Your task to perform on an android device: set the timer Image 0: 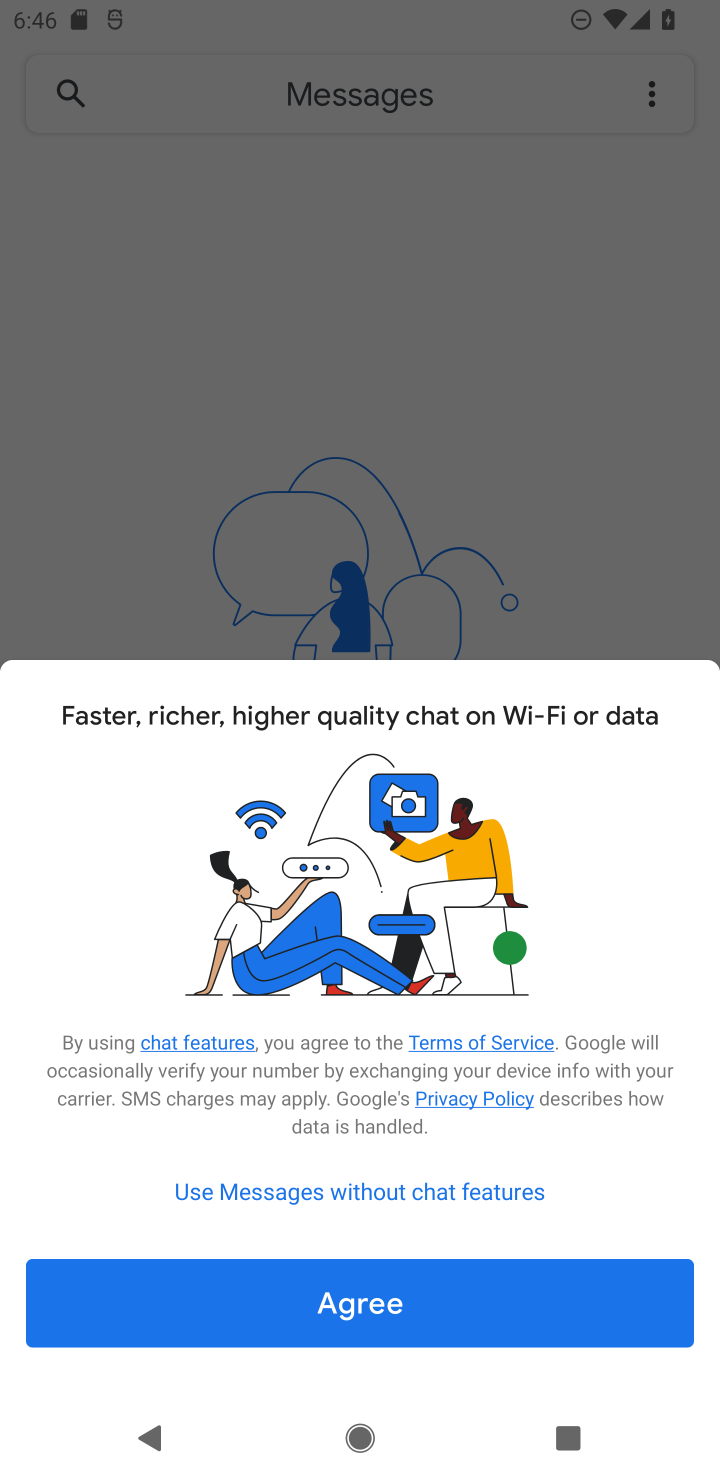
Step 0: press home button
Your task to perform on an android device: set the timer Image 1: 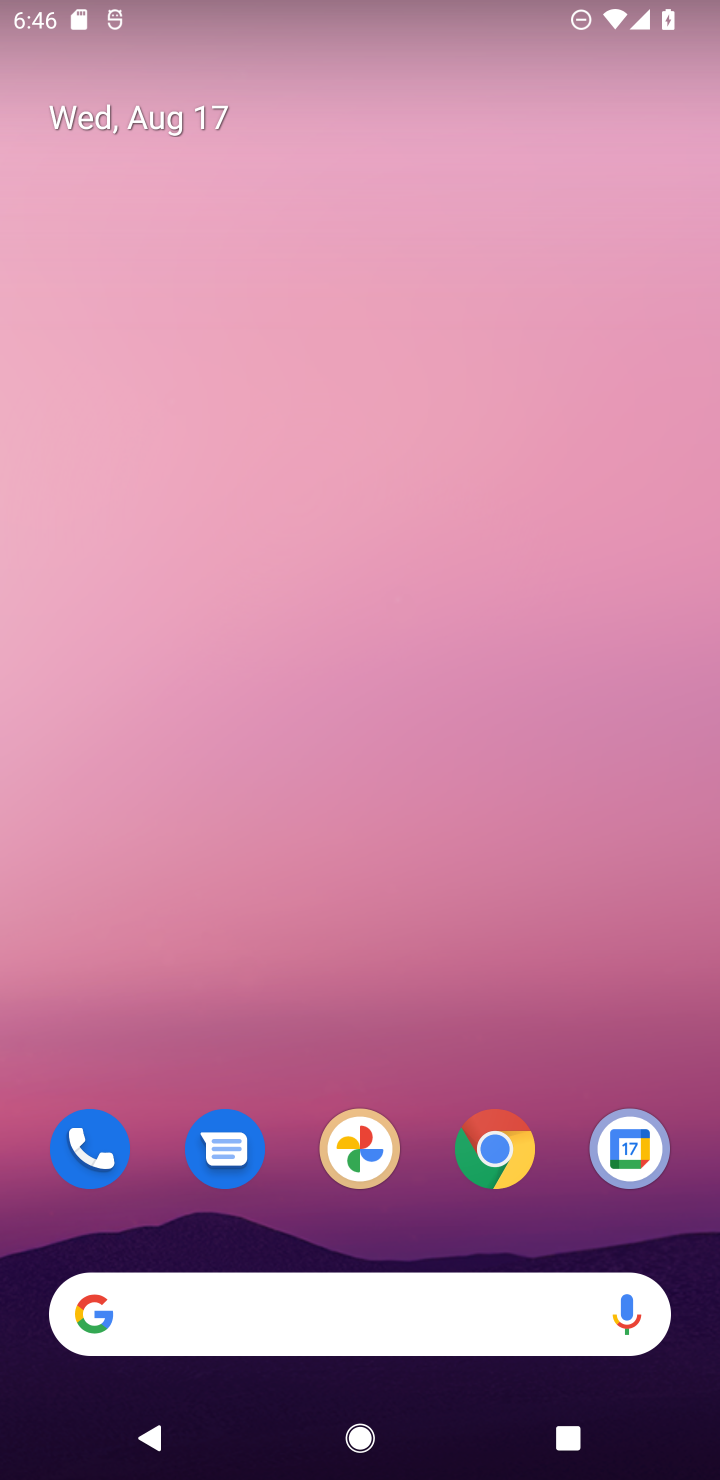
Step 1: drag from (409, 1246) to (252, 426)
Your task to perform on an android device: set the timer Image 2: 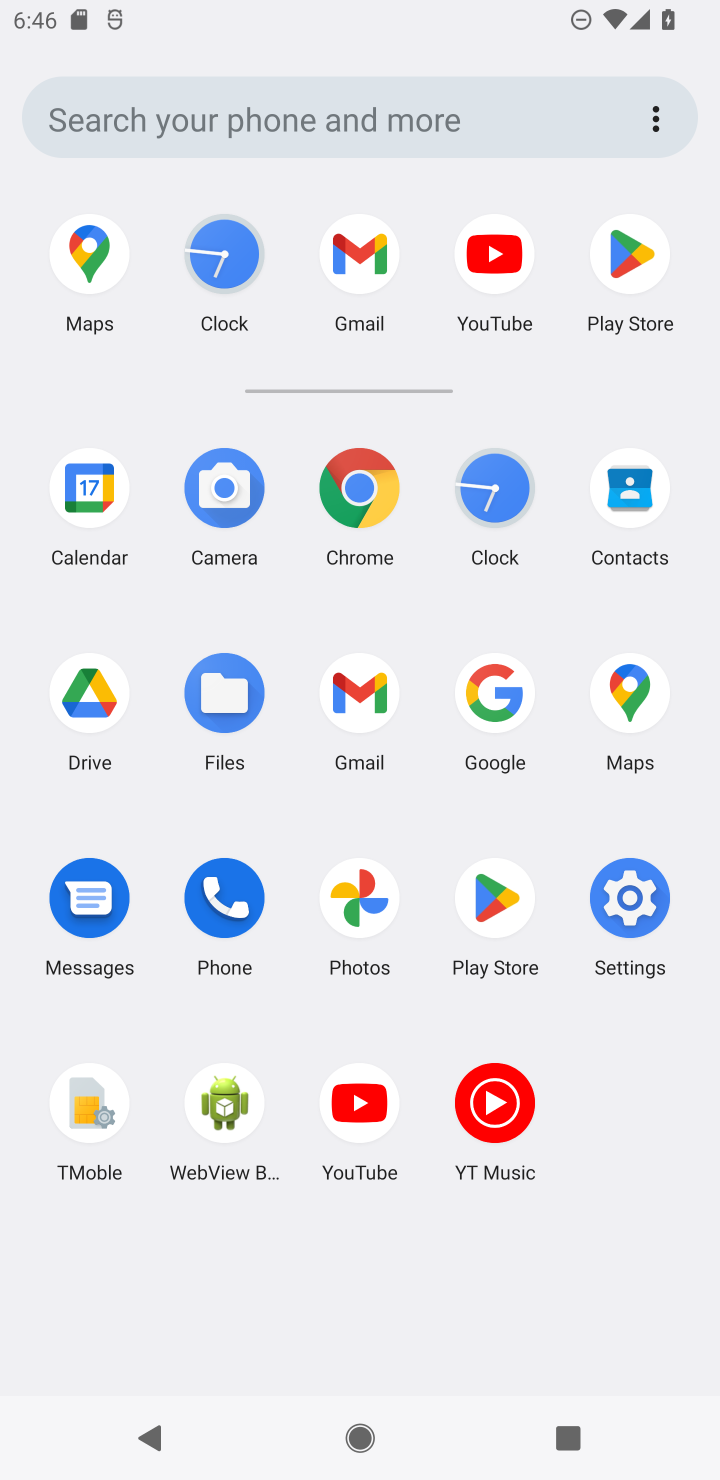
Step 2: click (220, 269)
Your task to perform on an android device: set the timer Image 3: 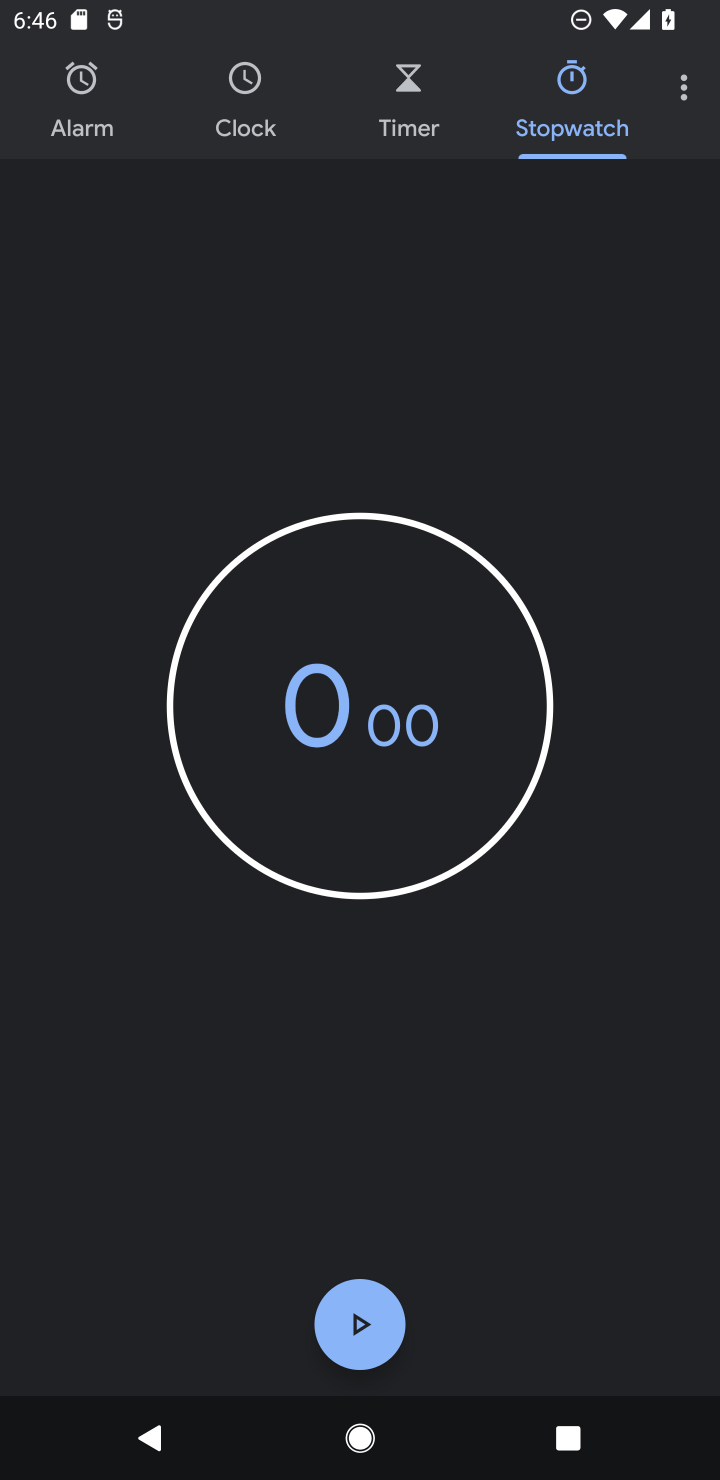
Step 3: click (415, 98)
Your task to perform on an android device: set the timer Image 4: 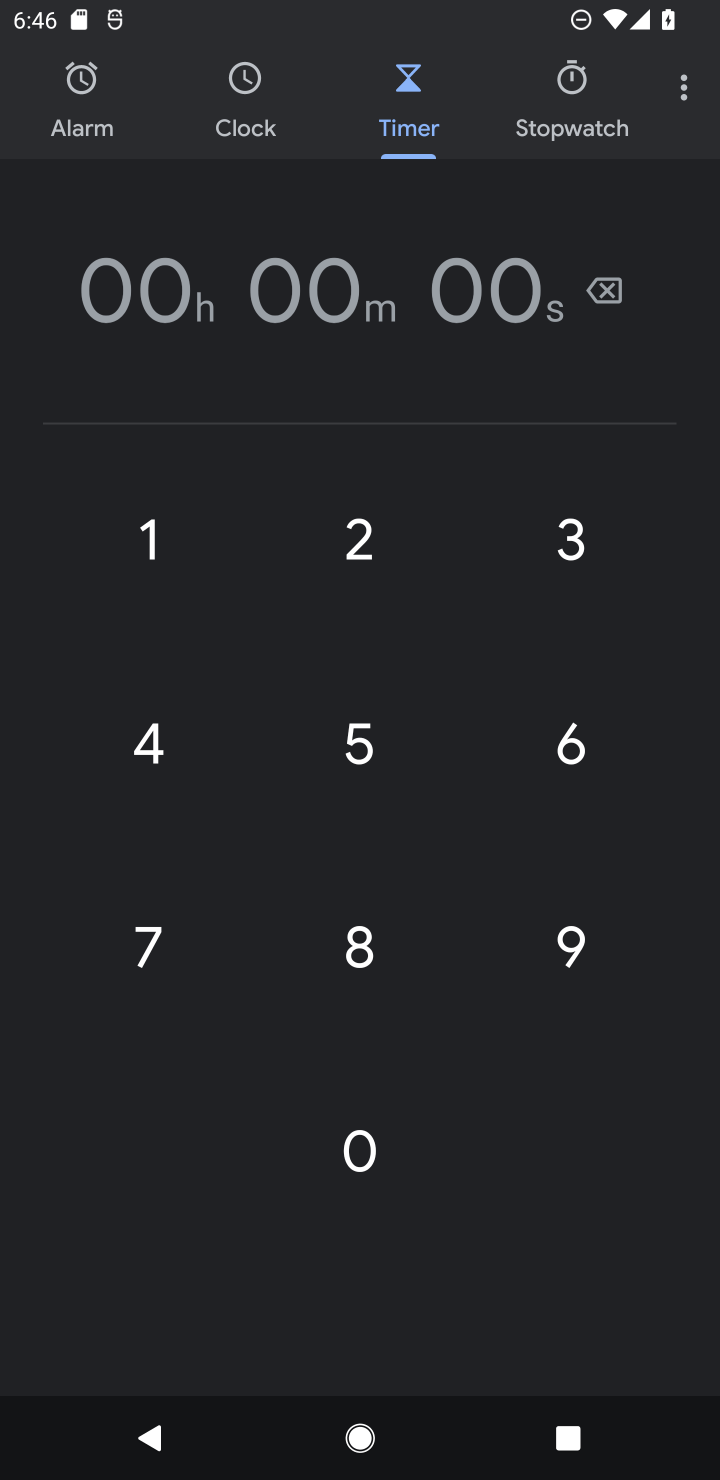
Step 4: click (158, 556)
Your task to perform on an android device: set the timer Image 5: 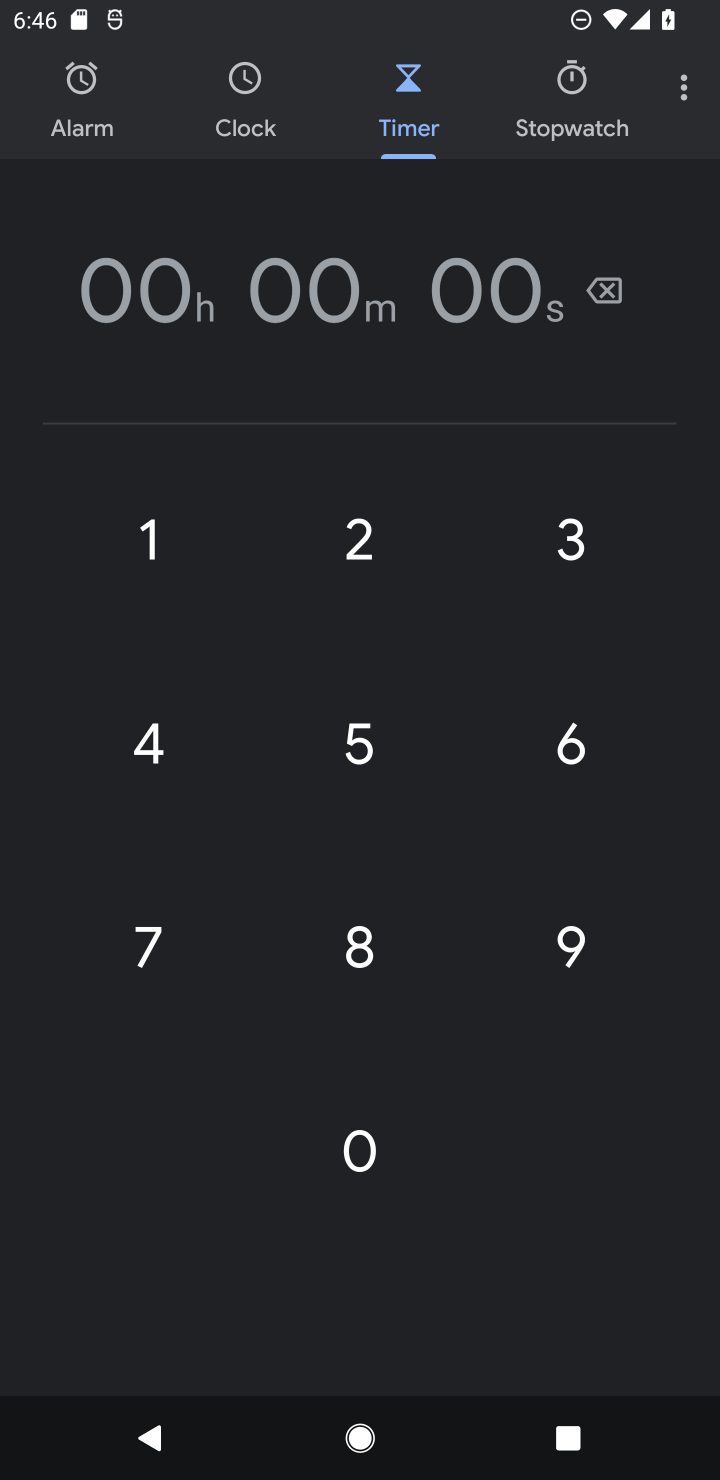
Step 5: click (158, 556)
Your task to perform on an android device: set the timer Image 6: 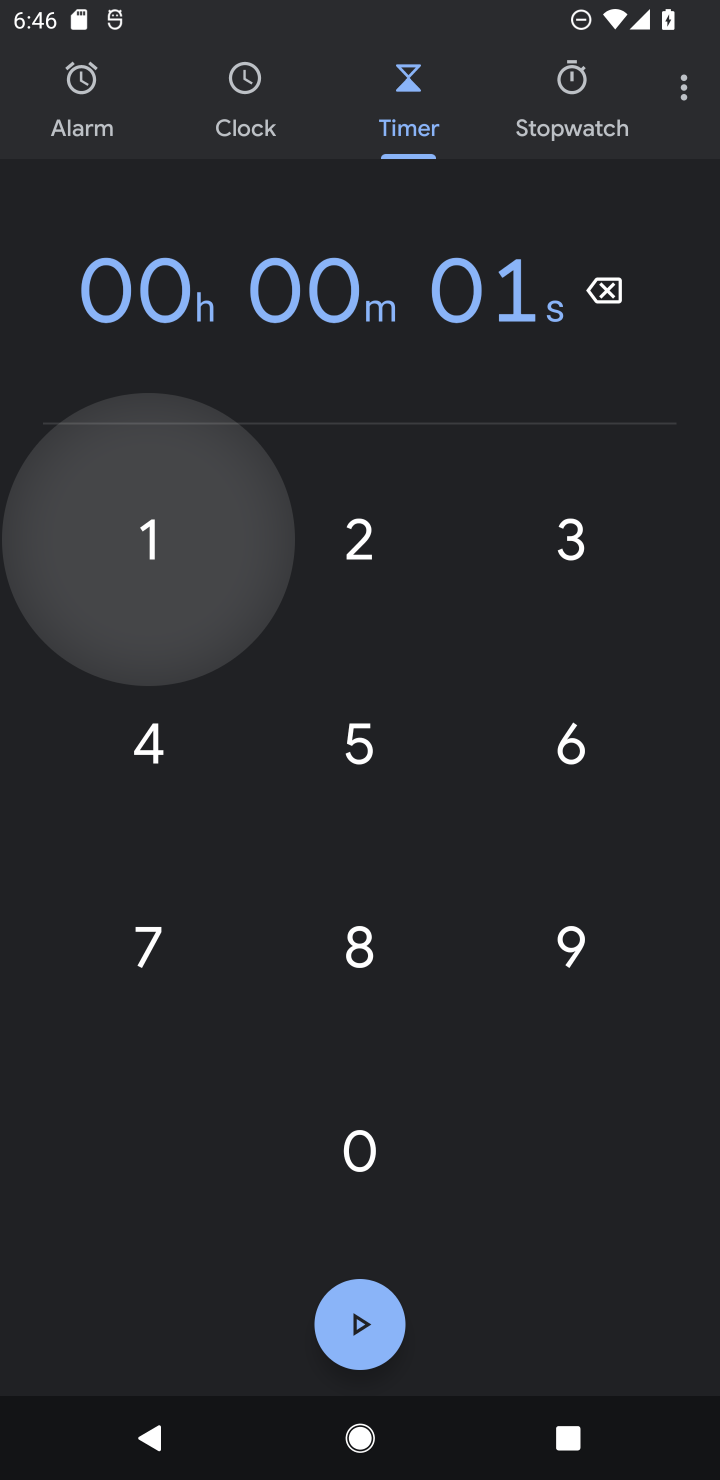
Step 6: click (158, 556)
Your task to perform on an android device: set the timer Image 7: 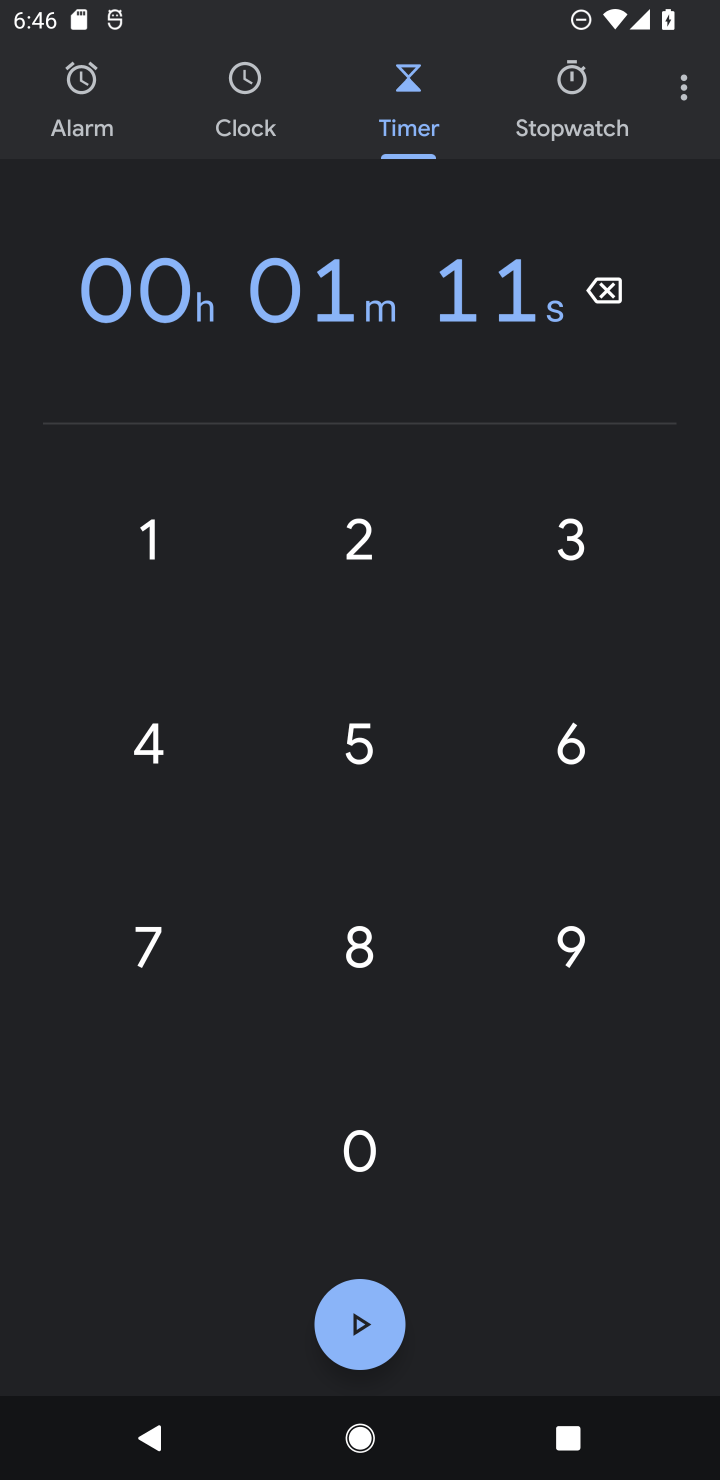
Step 7: click (143, 538)
Your task to perform on an android device: set the timer Image 8: 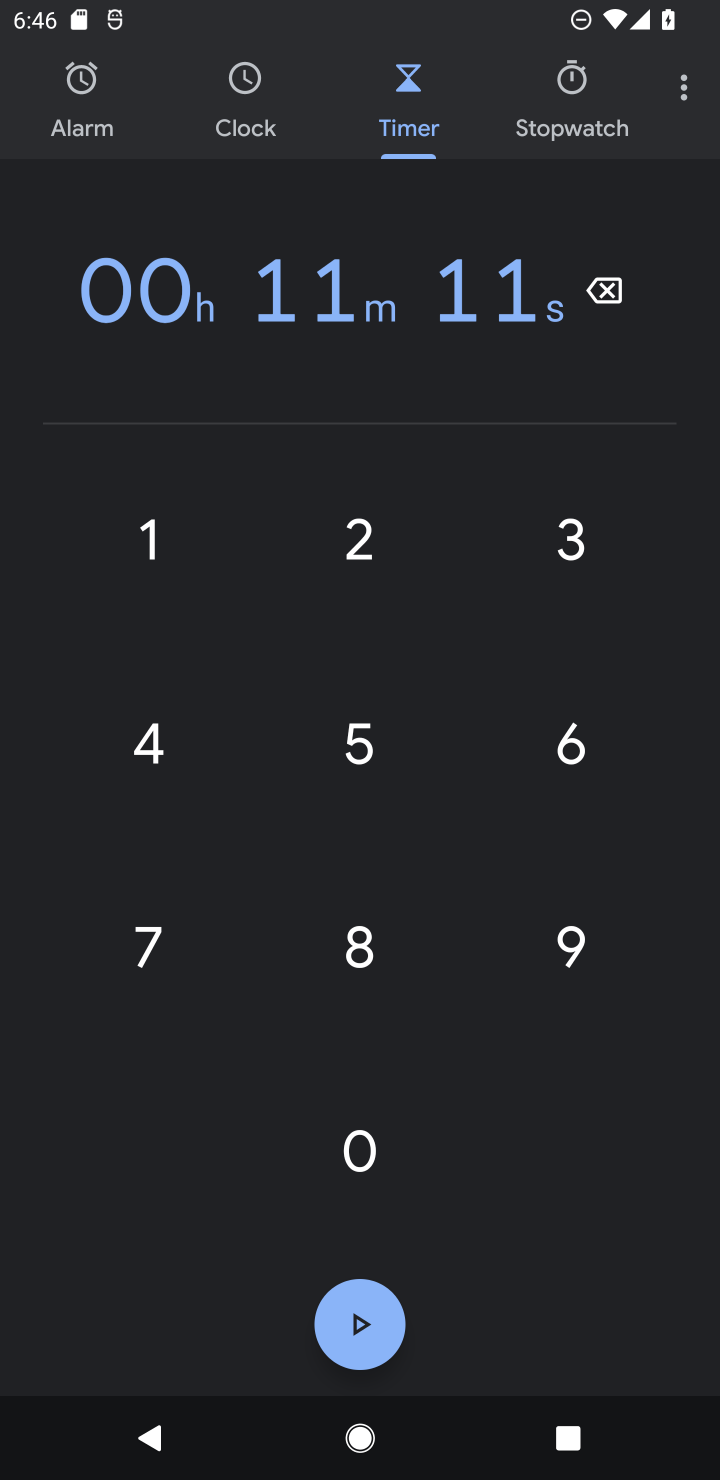
Step 8: click (143, 538)
Your task to perform on an android device: set the timer Image 9: 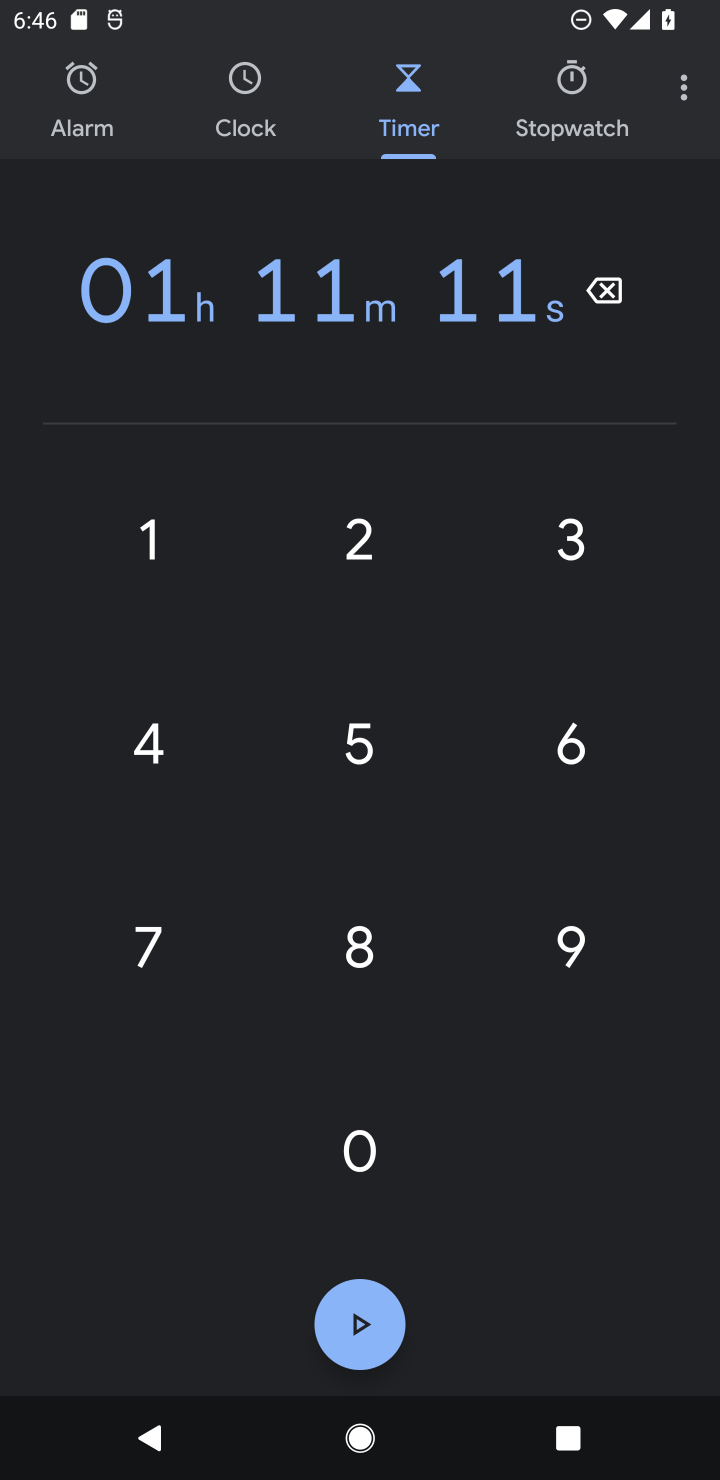
Step 9: task complete